Your task to perform on an android device: Turn off the flashlight Image 0: 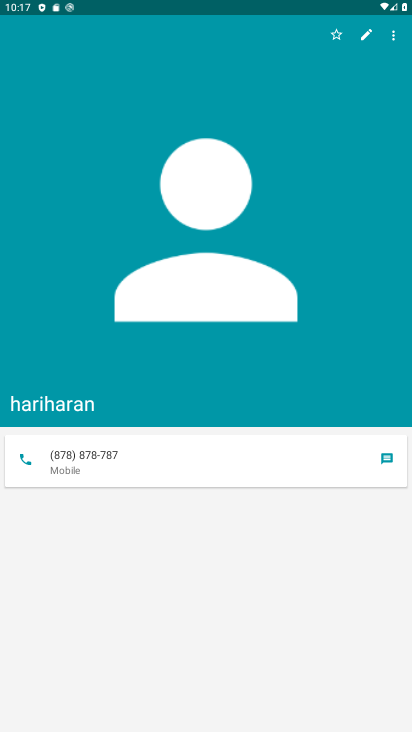
Step 0: press home button
Your task to perform on an android device: Turn off the flashlight Image 1: 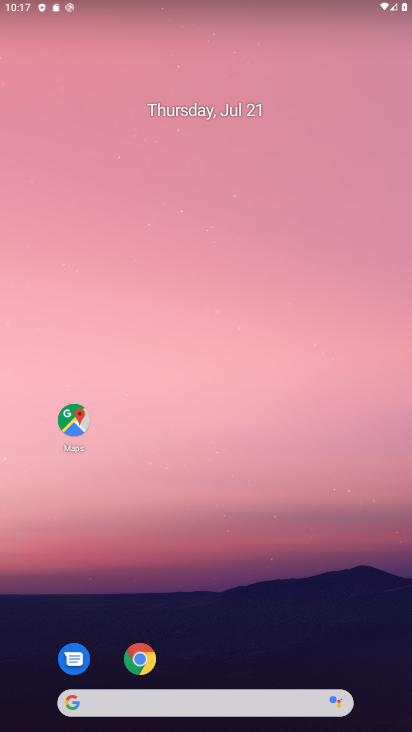
Step 1: drag from (203, 727) to (179, 88)
Your task to perform on an android device: Turn off the flashlight Image 2: 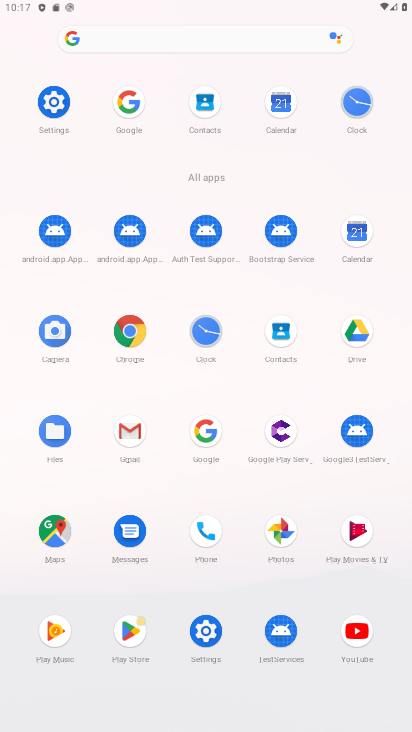
Step 2: click (51, 99)
Your task to perform on an android device: Turn off the flashlight Image 3: 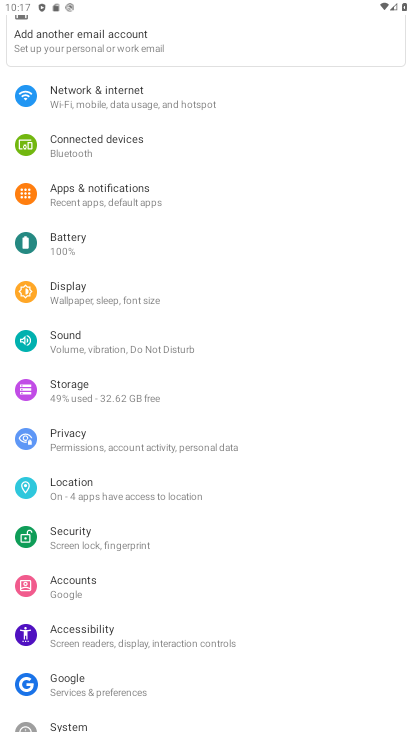
Step 3: task complete